Your task to perform on an android device: turn off data saver in the chrome app Image 0: 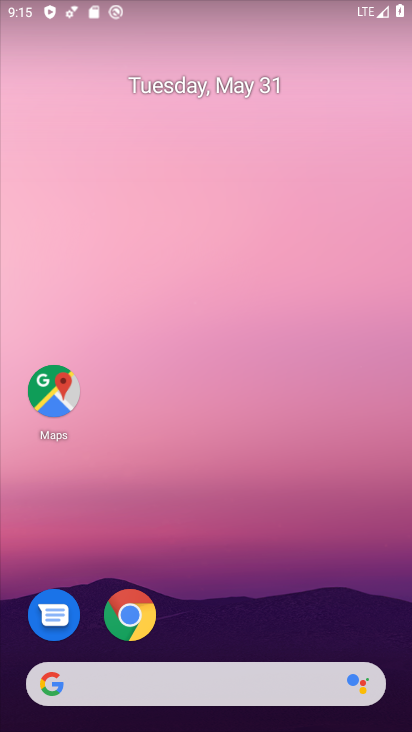
Step 0: drag from (392, 615) to (402, 122)
Your task to perform on an android device: turn off data saver in the chrome app Image 1: 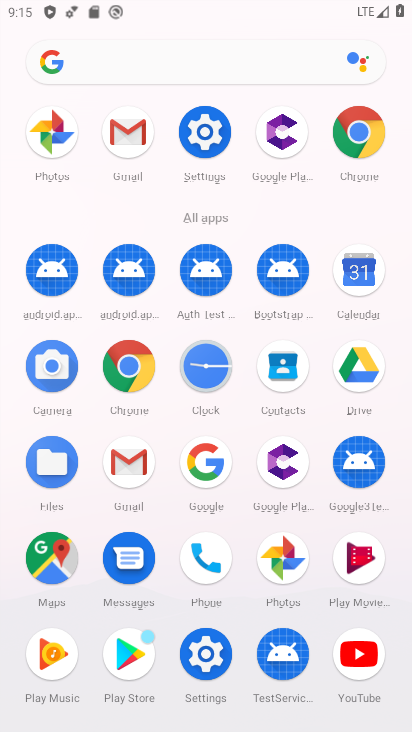
Step 1: click (352, 124)
Your task to perform on an android device: turn off data saver in the chrome app Image 2: 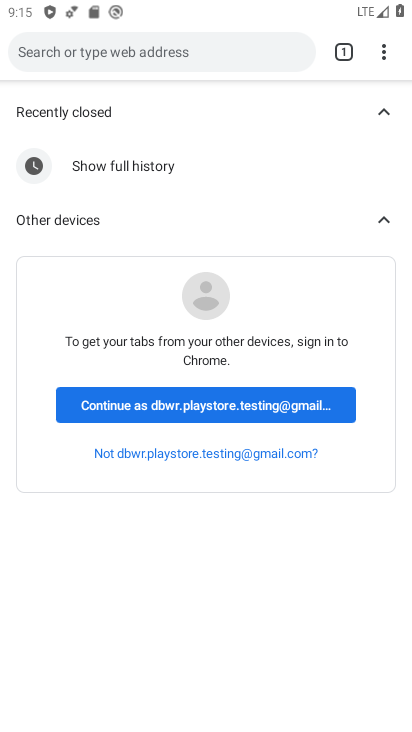
Step 2: drag from (371, 49) to (177, 446)
Your task to perform on an android device: turn off data saver in the chrome app Image 3: 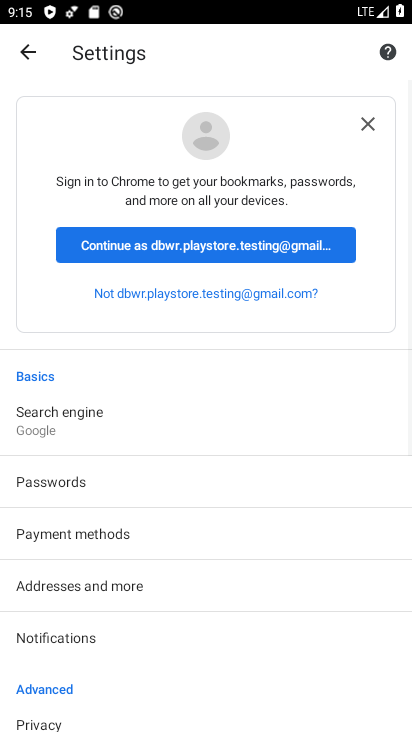
Step 3: drag from (173, 645) to (275, 205)
Your task to perform on an android device: turn off data saver in the chrome app Image 4: 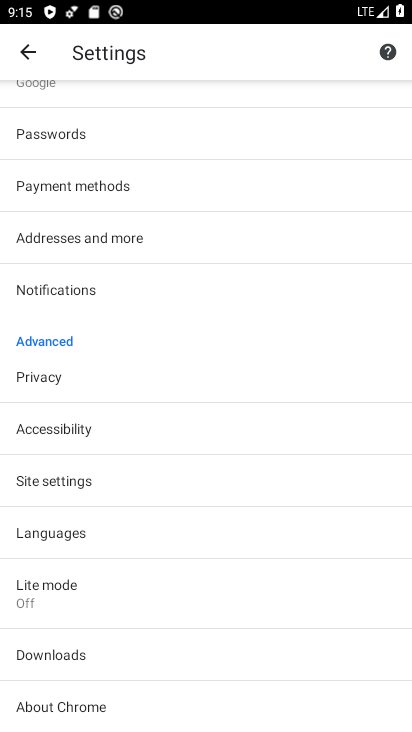
Step 4: click (86, 580)
Your task to perform on an android device: turn off data saver in the chrome app Image 5: 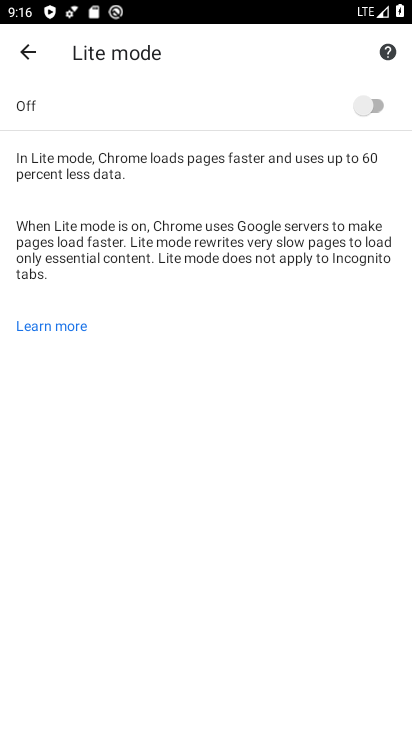
Step 5: task complete